Your task to perform on an android device: make emails show in primary in the gmail app Image 0: 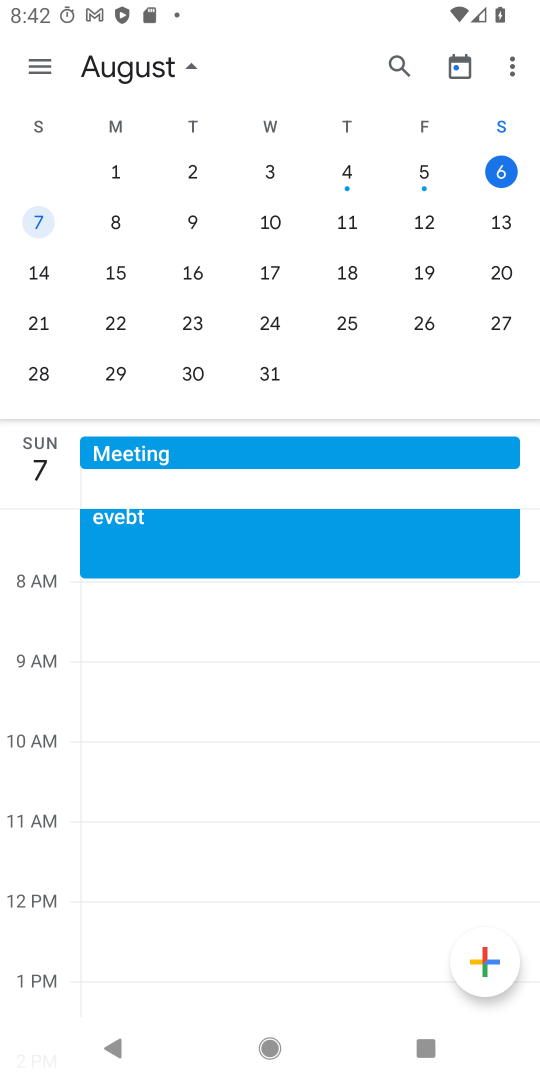
Step 0: press home button
Your task to perform on an android device: make emails show in primary in the gmail app Image 1: 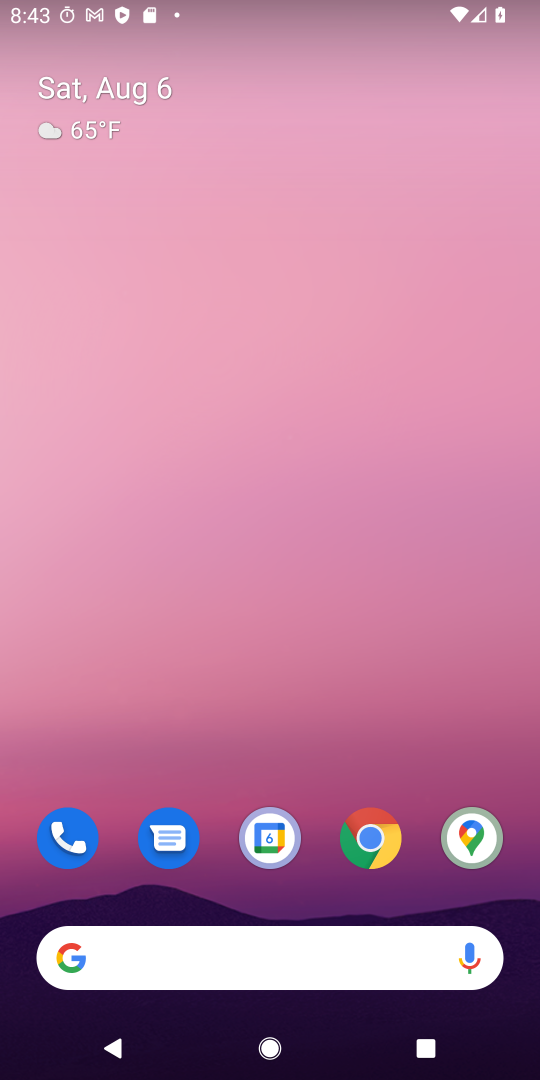
Step 1: drag from (279, 530) to (305, 32)
Your task to perform on an android device: make emails show in primary in the gmail app Image 2: 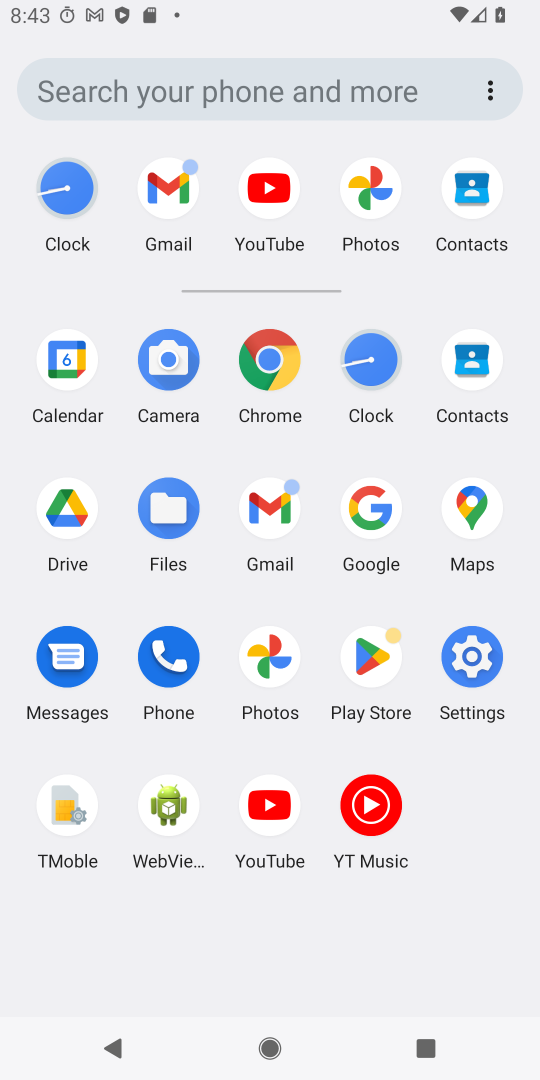
Step 2: click (264, 521)
Your task to perform on an android device: make emails show in primary in the gmail app Image 3: 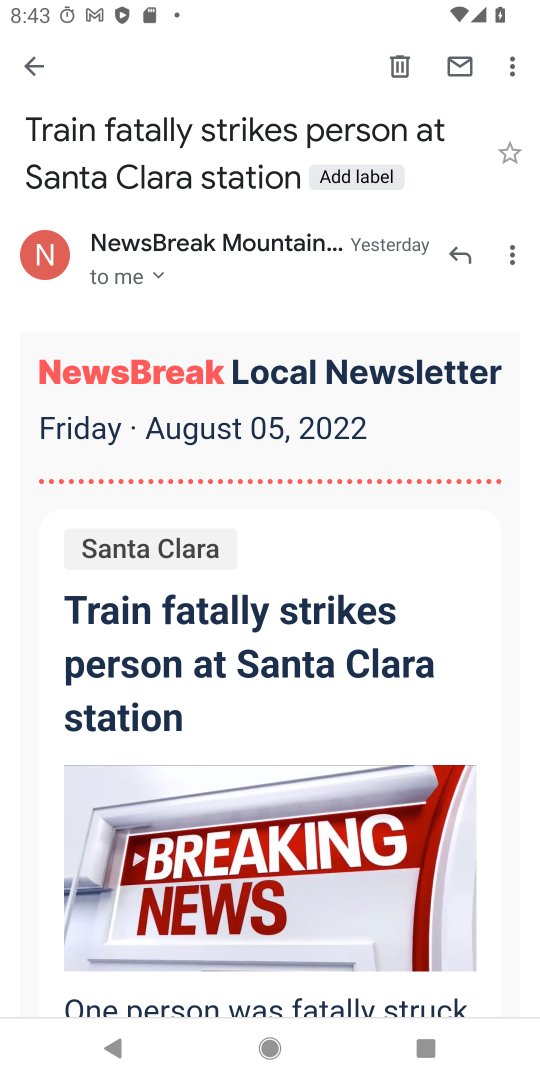
Step 3: click (31, 69)
Your task to perform on an android device: make emails show in primary in the gmail app Image 4: 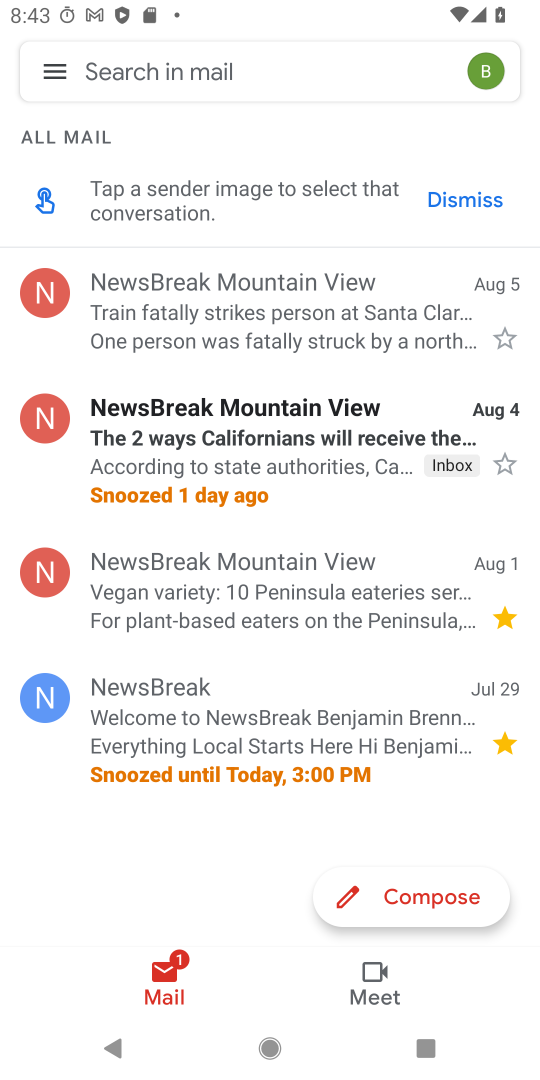
Step 4: click (52, 65)
Your task to perform on an android device: make emails show in primary in the gmail app Image 5: 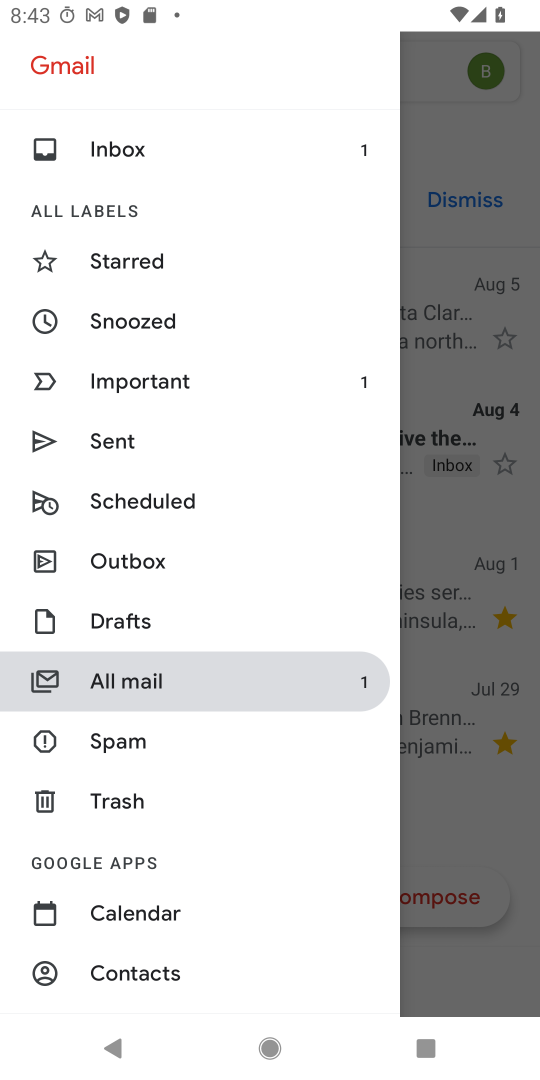
Step 5: drag from (170, 854) to (146, 267)
Your task to perform on an android device: make emails show in primary in the gmail app Image 6: 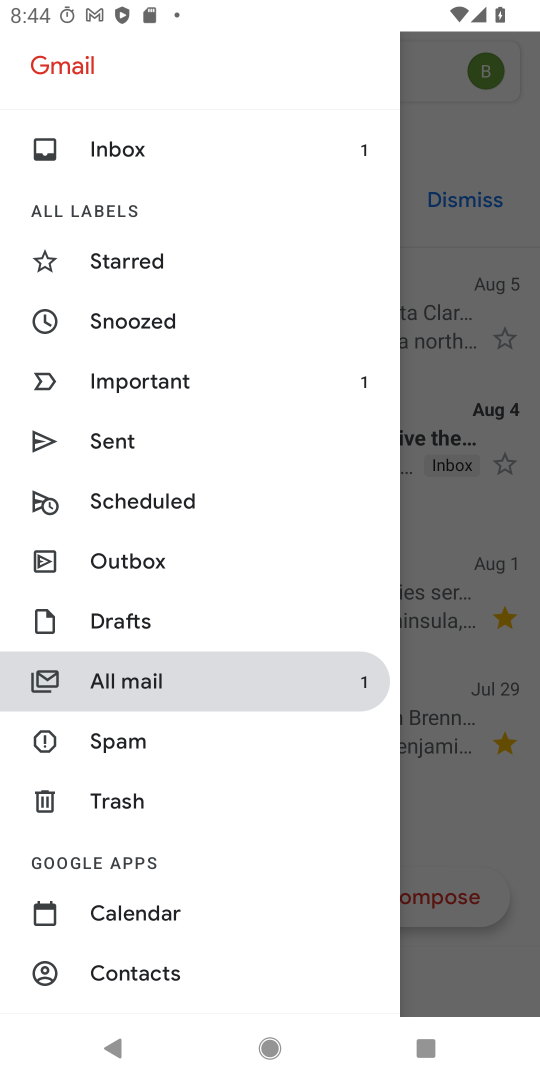
Step 6: drag from (175, 911) to (140, 272)
Your task to perform on an android device: make emails show in primary in the gmail app Image 7: 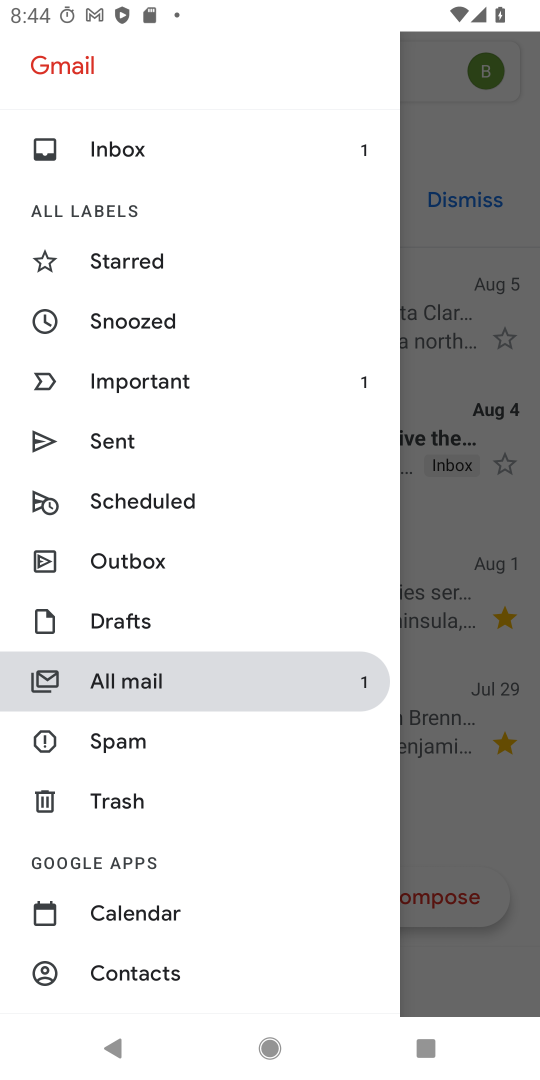
Step 7: click (115, 218)
Your task to perform on an android device: make emails show in primary in the gmail app Image 8: 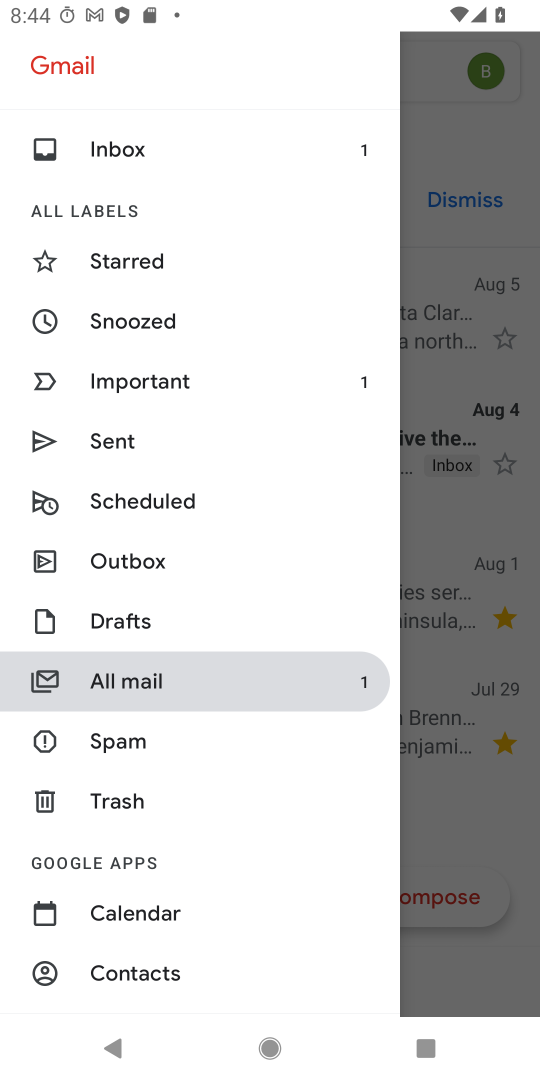
Step 8: drag from (203, 858) to (203, 87)
Your task to perform on an android device: make emails show in primary in the gmail app Image 9: 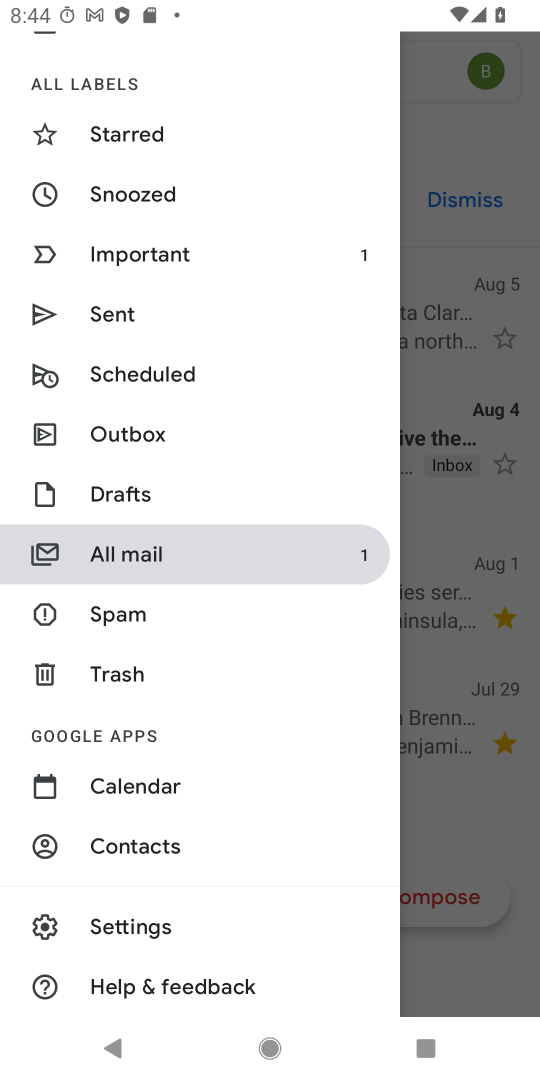
Step 9: click (120, 920)
Your task to perform on an android device: make emails show in primary in the gmail app Image 10: 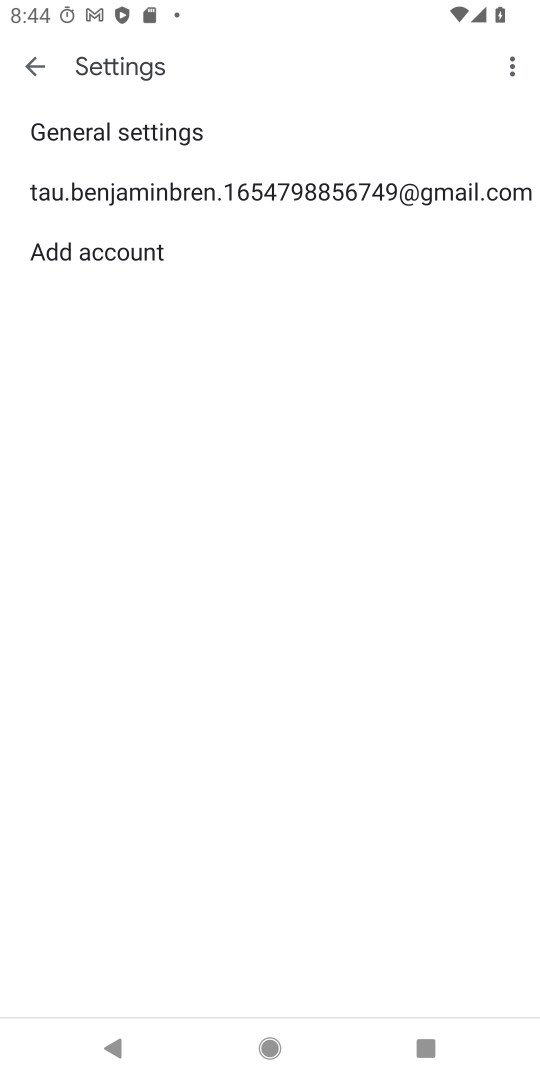
Step 10: click (234, 201)
Your task to perform on an android device: make emails show in primary in the gmail app Image 11: 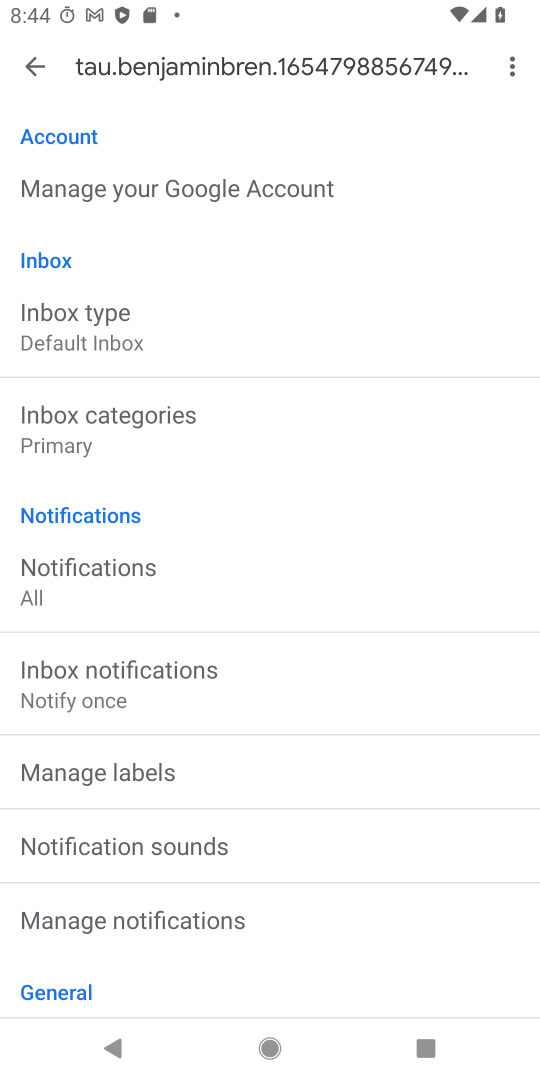
Step 11: task complete